Your task to perform on an android device: toggle notification dots Image 0: 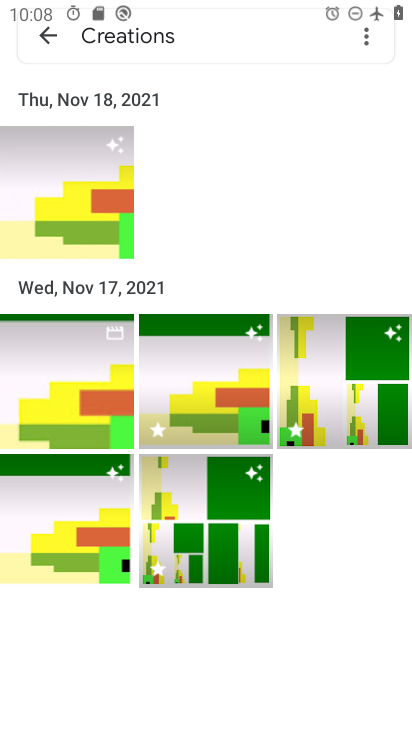
Step 0: press home button
Your task to perform on an android device: toggle notification dots Image 1: 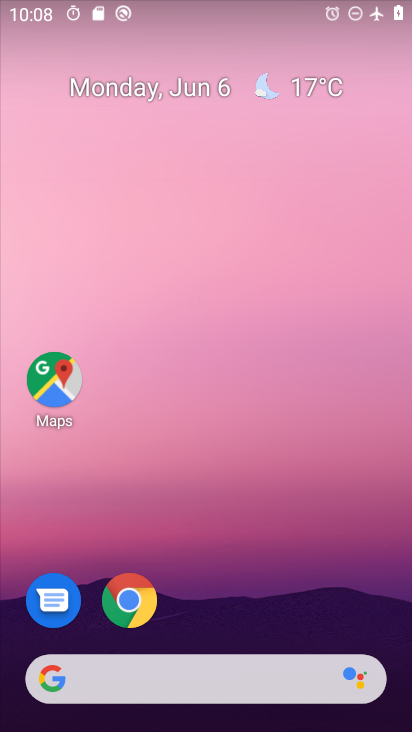
Step 1: drag from (331, 598) to (258, 17)
Your task to perform on an android device: toggle notification dots Image 2: 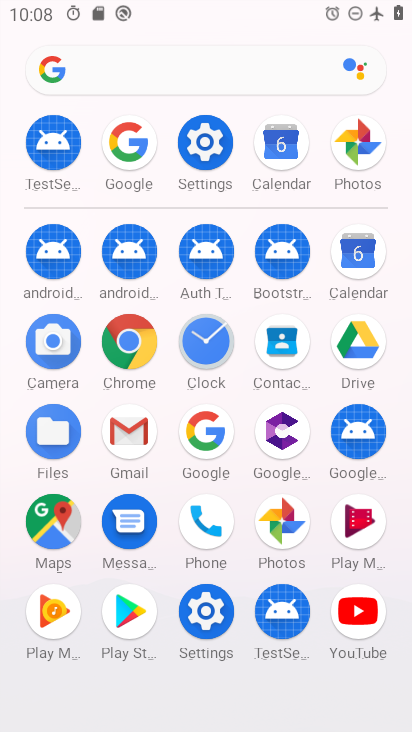
Step 2: click (205, 136)
Your task to perform on an android device: toggle notification dots Image 3: 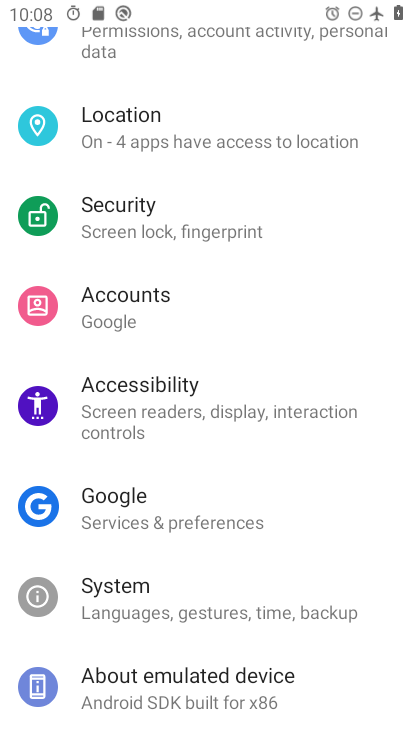
Step 3: drag from (208, 161) to (246, 615)
Your task to perform on an android device: toggle notification dots Image 4: 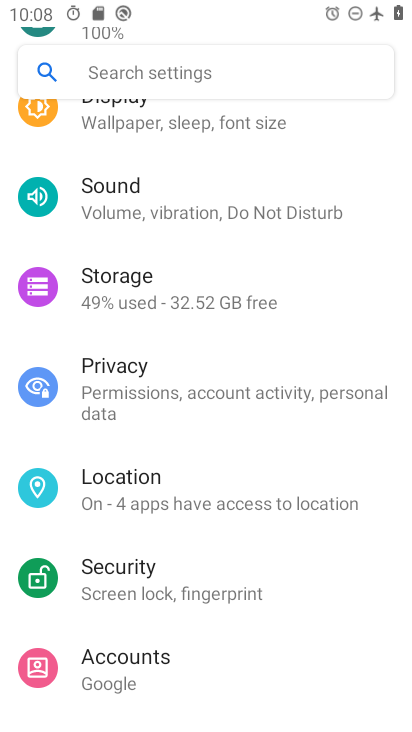
Step 4: drag from (223, 153) to (254, 595)
Your task to perform on an android device: toggle notification dots Image 5: 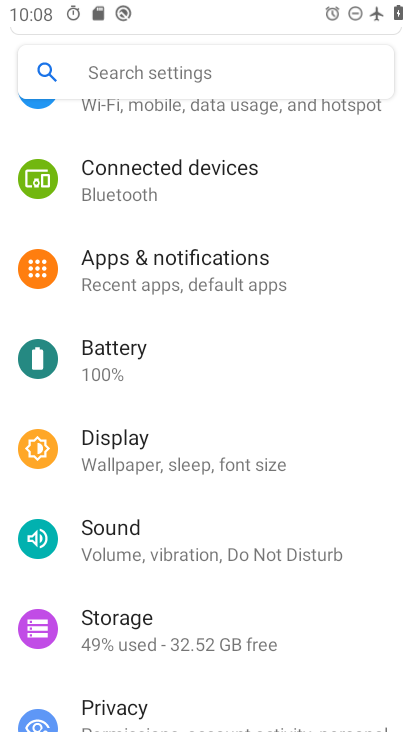
Step 5: click (205, 272)
Your task to perform on an android device: toggle notification dots Image 6: 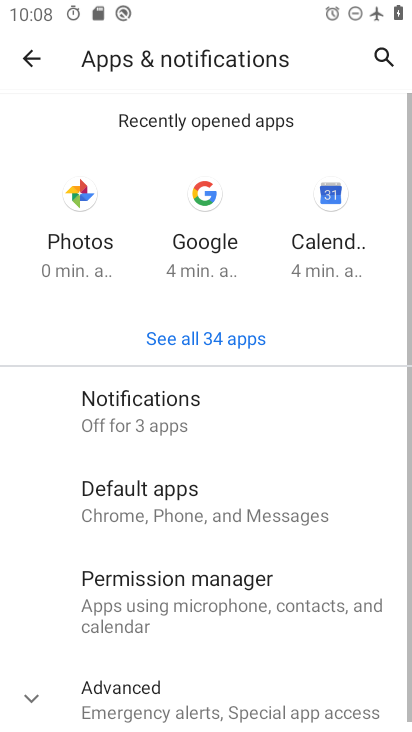
Step 6: click (206, 422)
Your task to perform on an android device: toggle notification dots Image 7: 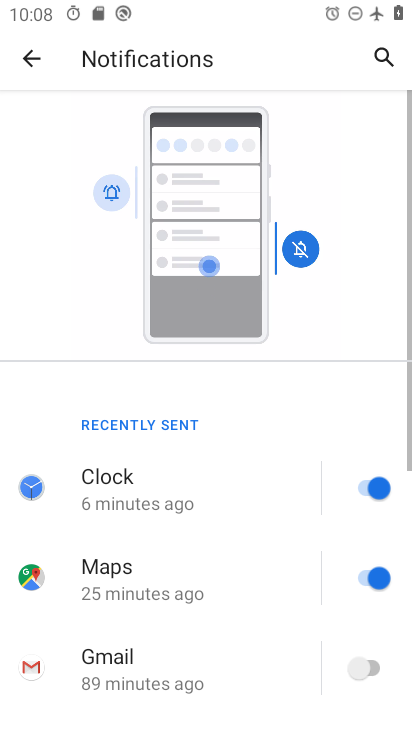
Step 7: drag from (235, 564) to (252, 132)
Your task to perform on an android device: toggle notification dots Image 8: 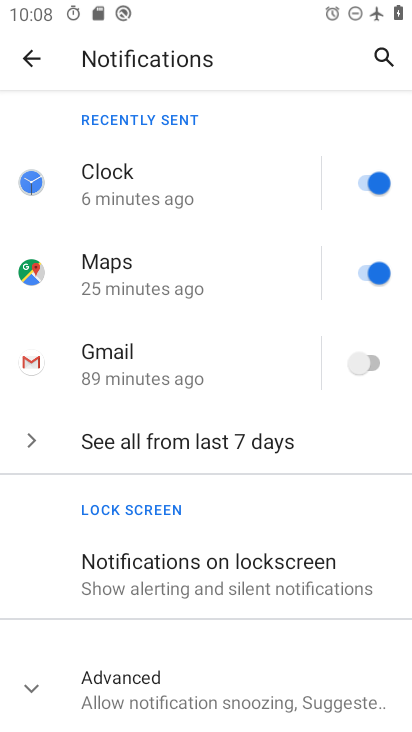
Step 8: click (224, 676)
Your task to perform on an android device: toggle notification dots Image 9: 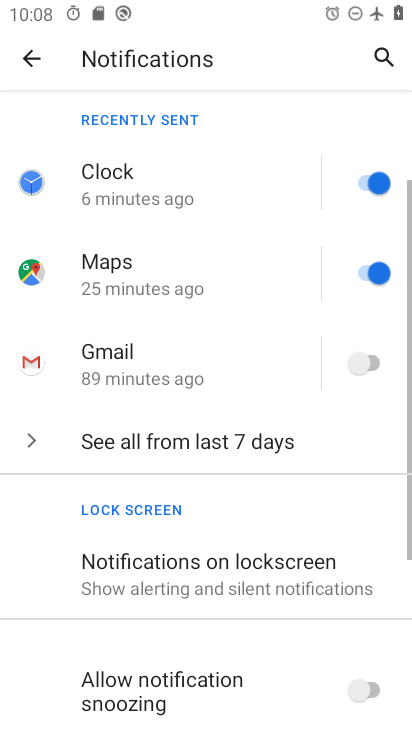
Step 9: drag from (266, 648) to (240, 94)
Your task to perform on an android device: toggle notification dots Image 10: 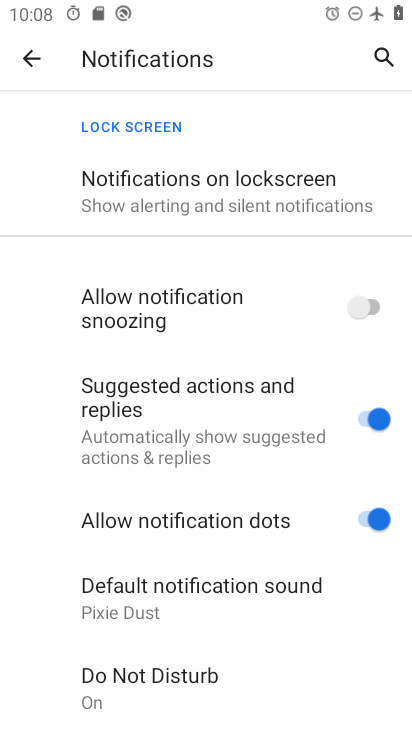
Step 10: click (376, 516)
Your task to perform on an android device: toggle notification dots Image 11: 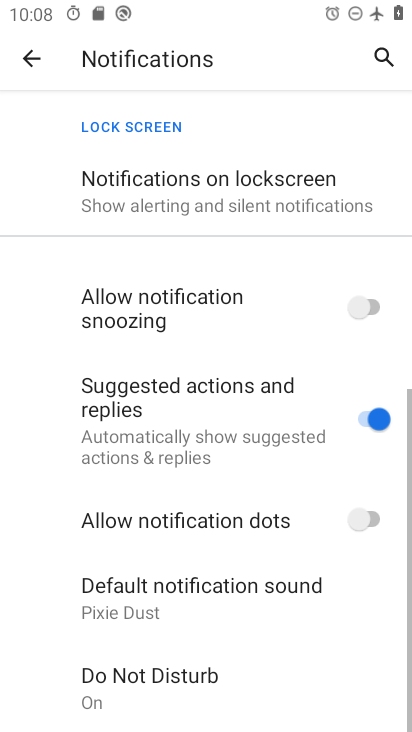
Step 11: task complete